Your task to perform on an android device: Open location settings Image 0: 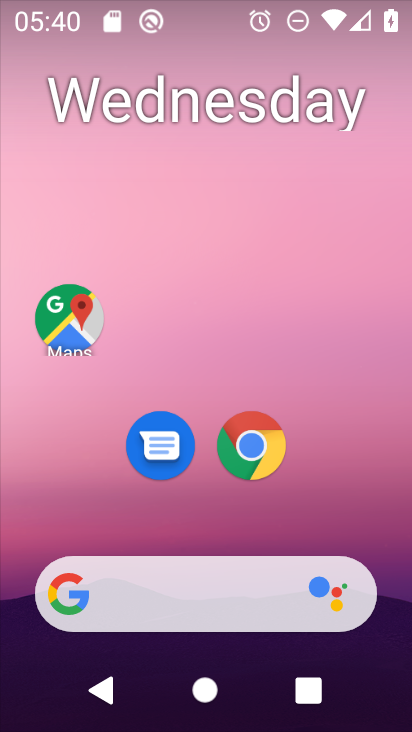
Step 0: drag from (175, 514) to (244, 0)
Your task to perform on an android device: Open location settings Image 1: 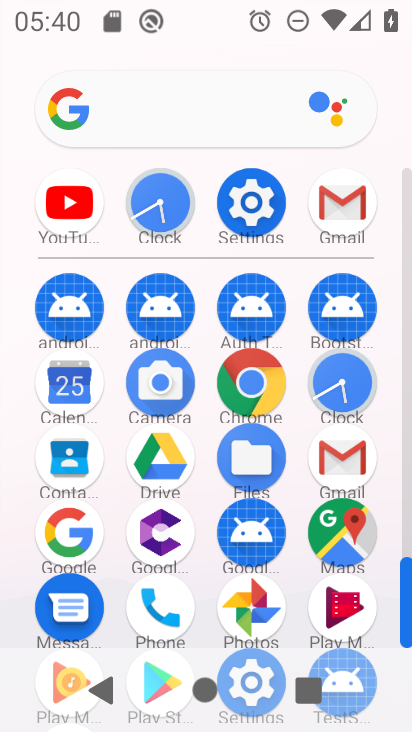
Step 1: click (254, 172)
Your task to perform on an android device: Open location settings Image 2: 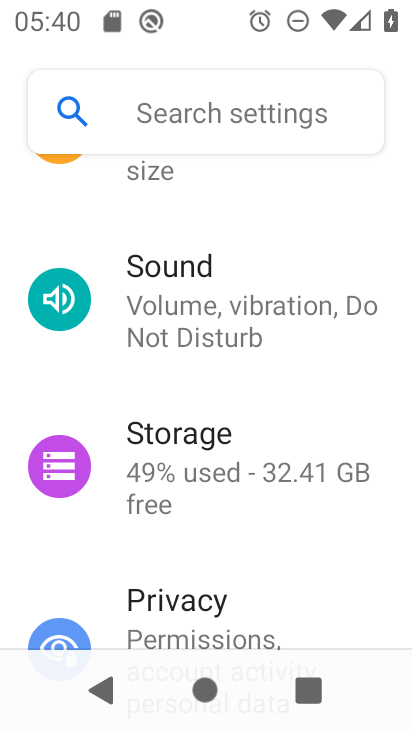
Step 2: drag from (229, 200) to (226, 557)
Your task to perform on an android device: Open location settings Image 3: 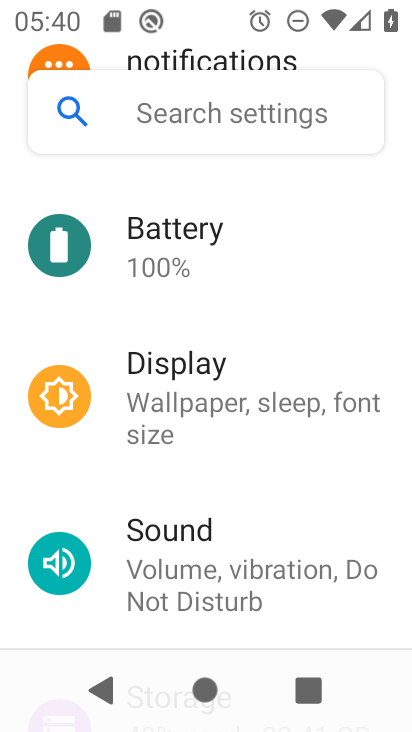
Step 3: drag from (104, 602) to (197, 38)
Your task to perform on an android device: Open location settings Image 4: 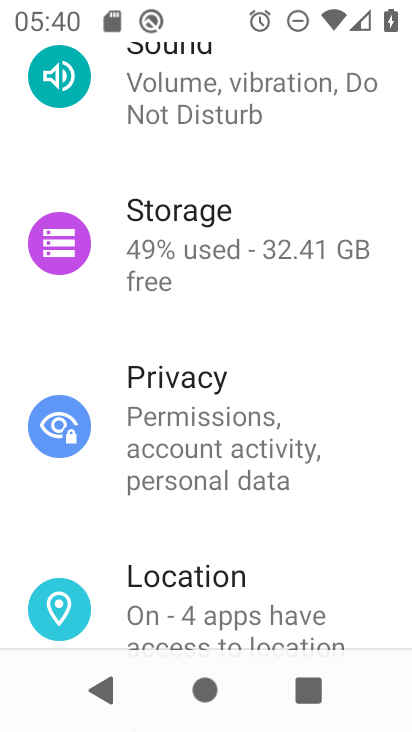
Step 4: click (219, 610)
Your task to perform on an android device: Open location settings Image 5: 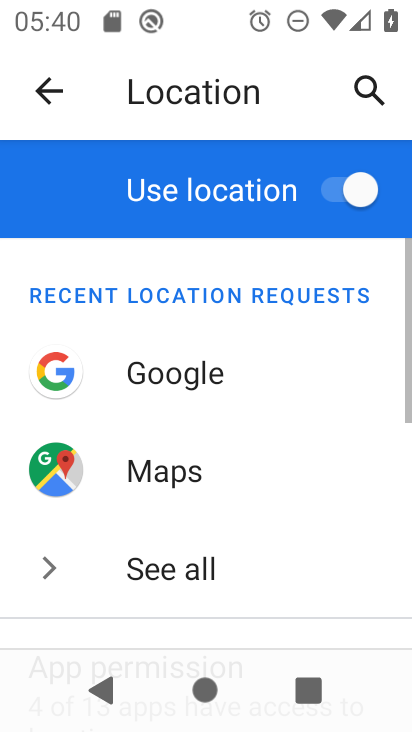
Step 5: task complete